Your task to perform on an android device: Open maps Image 0: 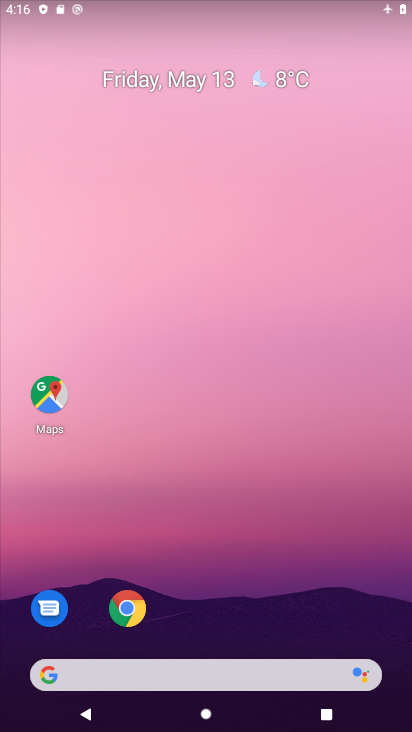
Step 0: click (48, 398)
Your task to perform on an android device: Open maps Image 1: 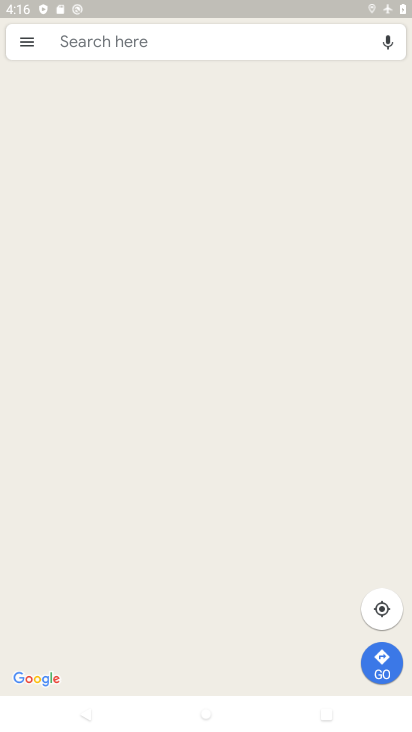
Step 1: task complete